Your task to perform on an android device: delete browsing data in the chrome app Image 0: 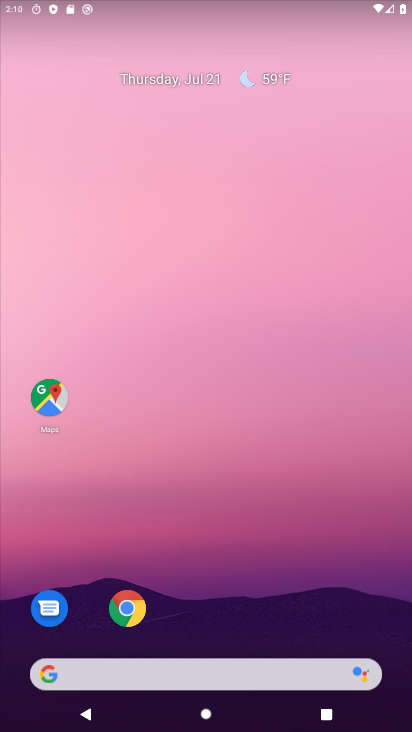
Step 0: click (131, 602)
Your task to perform on an android device: delete browsing data in the chrome app Image 1: 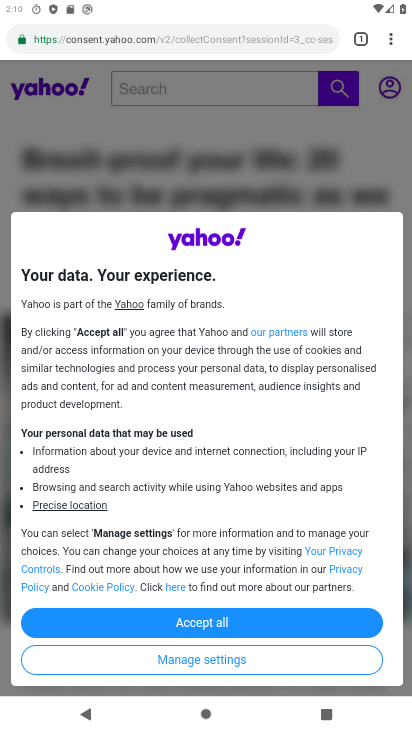
Step 1: click (386, 38)
Your task to perform on an android device: delete browsing data in the chrome app Image 2: 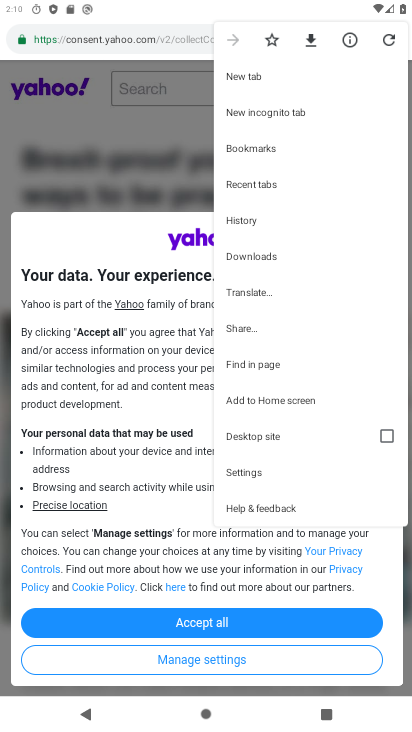
Step 2: click (244, 214)
Your task to perform on an android device: delete browsing data in the chrome app Image 3: 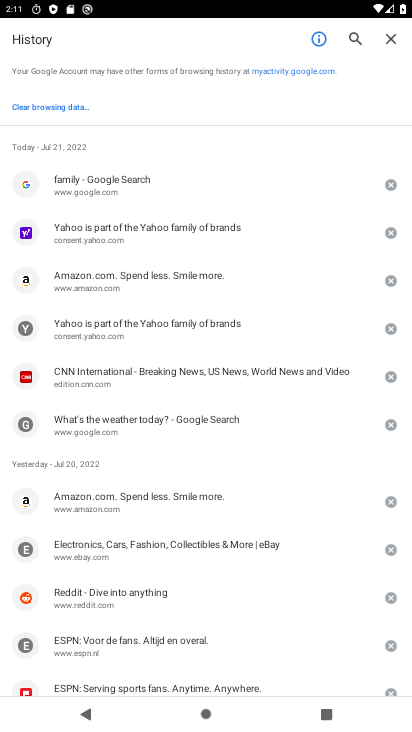
Step 3: click (62, 113)
Your task to perform on an android device: delete browsing data in the chrome app Image 4: 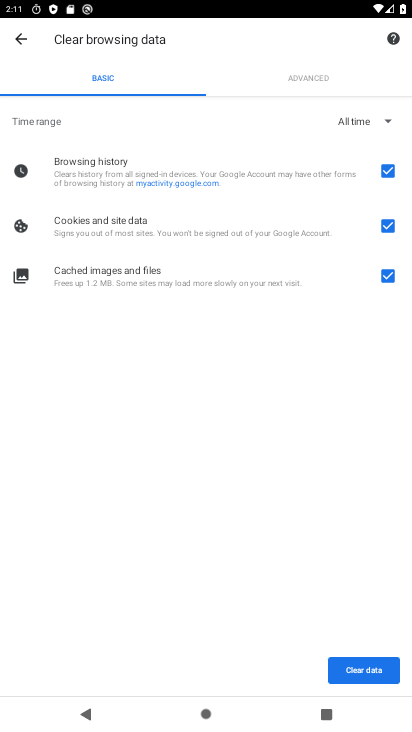
Step 4: click (384, 675)
Your task to perform on an android device: delete browsing data in the chrome app Image 5: 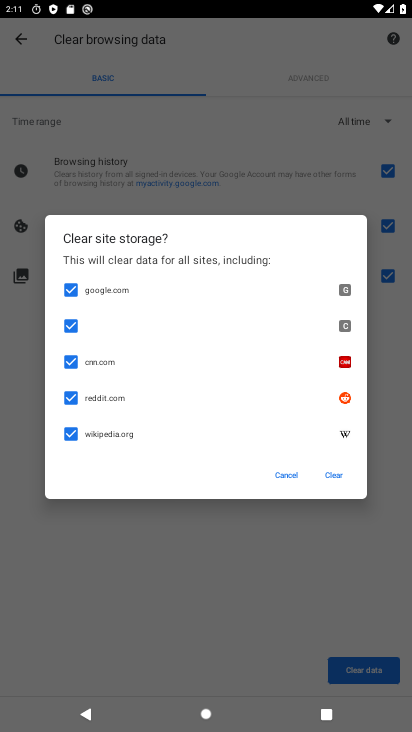
Step 5: click (335, 467)
Your task to perform on an android device: delete browsing data in the chrome app Image 6: 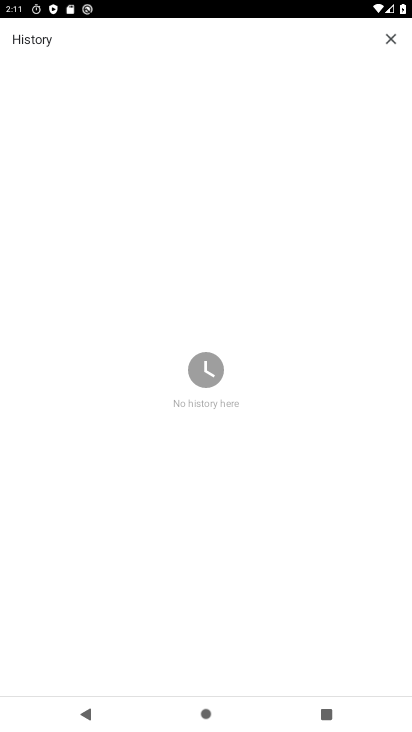
Step 6: task complete